Your task to perform on an android device: Open Amazon Image 0: 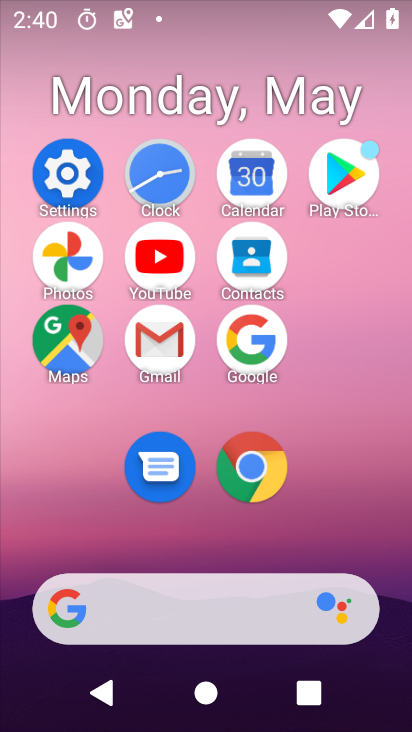
Step 0: click (256, 466)
Your task to perform on an android device: Open Amazon Image 1: 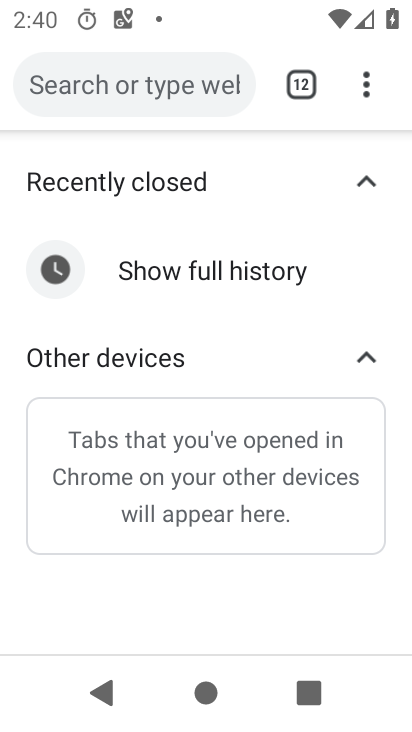
Step 1: click (305, 93)
Your task to perform on an android device: Open Amazon Image 2: 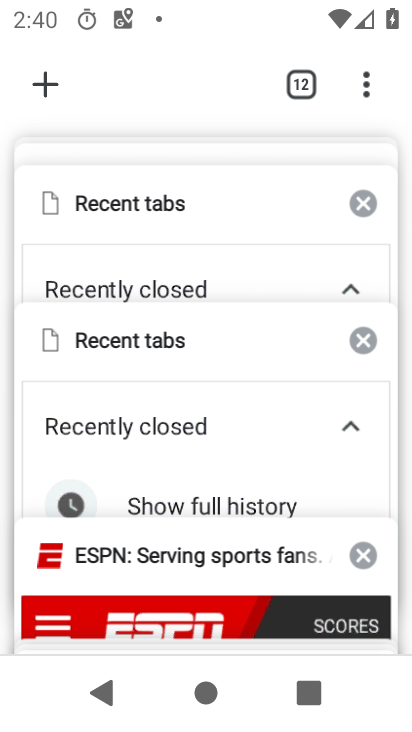
Step 2: drag from (191, 456) to (189, 121)
Your task to perform on an android device: Open Amazon Image 3: 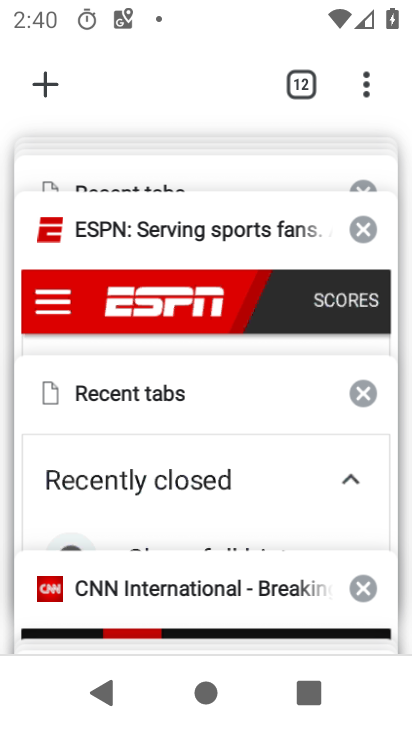
Step 3: drag from (203, 129) to (219, 551)
Your task to perform on an android device: Open Amazon Image 4: 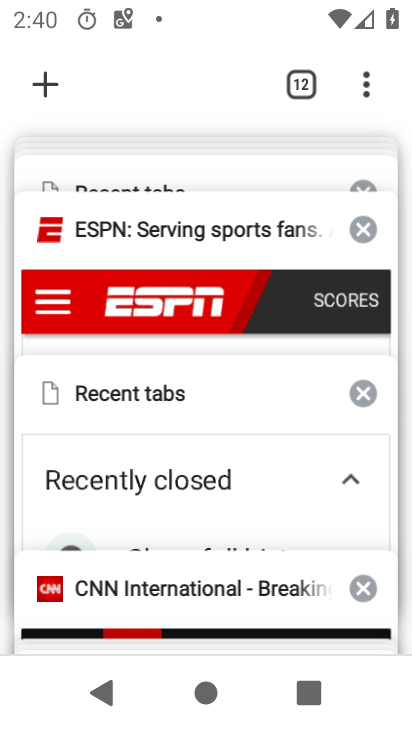
Step 4: drag from (197, 224) to (182, 536)
Your task to perform on an android device: Open Amazon Image 5: 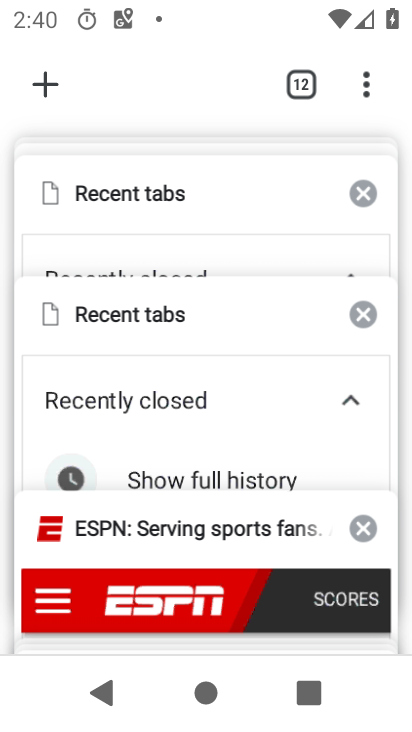
Step 5: drag from (195, 224) to (202, 558)
Your task to perform on an android device: Open Amazon Image 6: 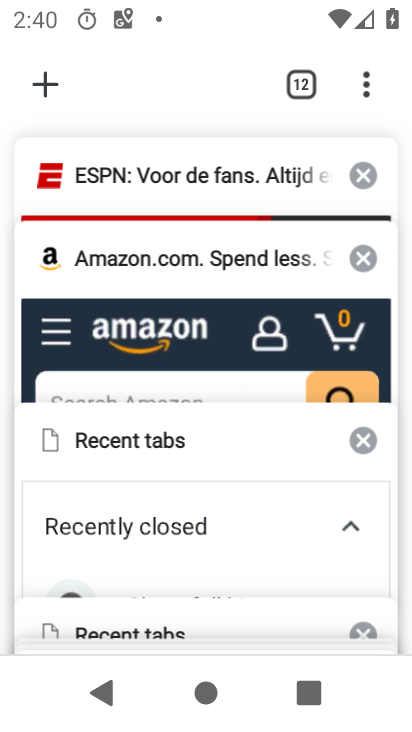
Step 6: click (138, 266)
Your task to perform on an android device: Open Amazon Image 7: 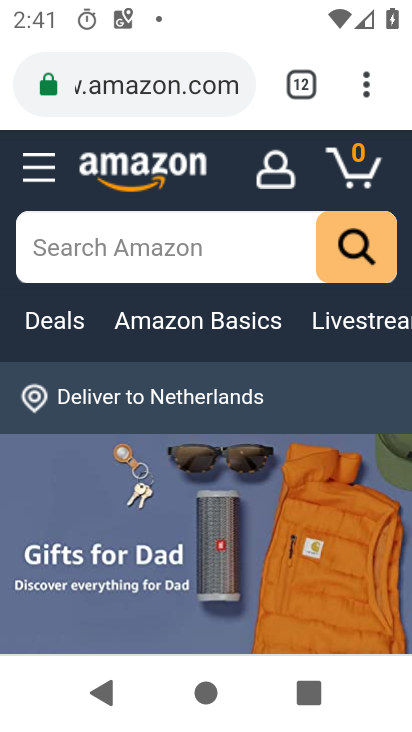
Step 7: task complete